Your task to perform on an android device: turn on the 24-hour format for clock Image 0: 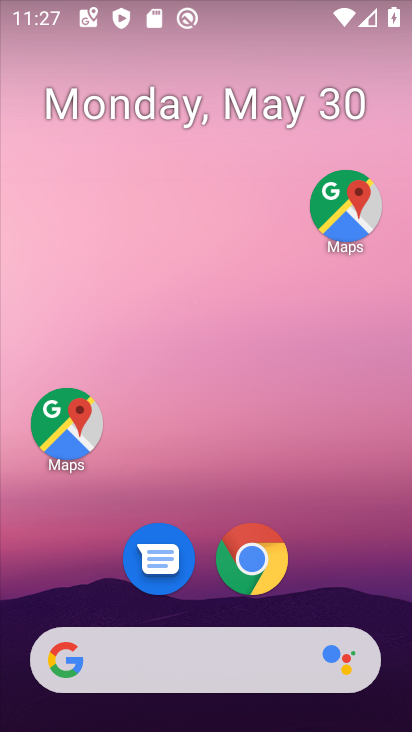
Step 0: drag from (319, 522) to (183, 18)
Your task to perform on an android device: turn on the 24-hour format for clock Image 1: 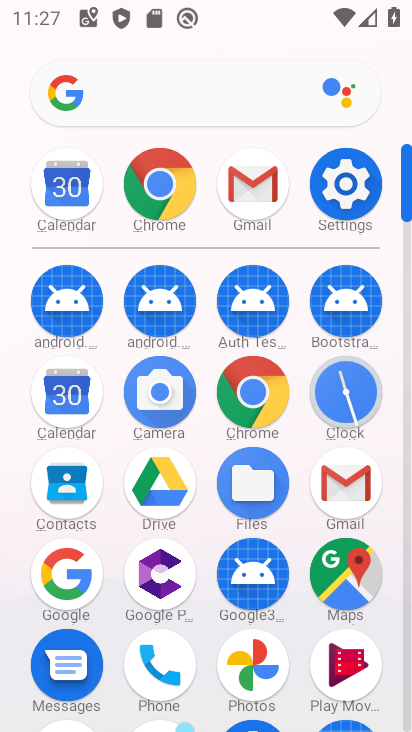
Step 1: click (337, 390)
Your task to perform on an android device: turn on the 24-hour format for clock Image 2: 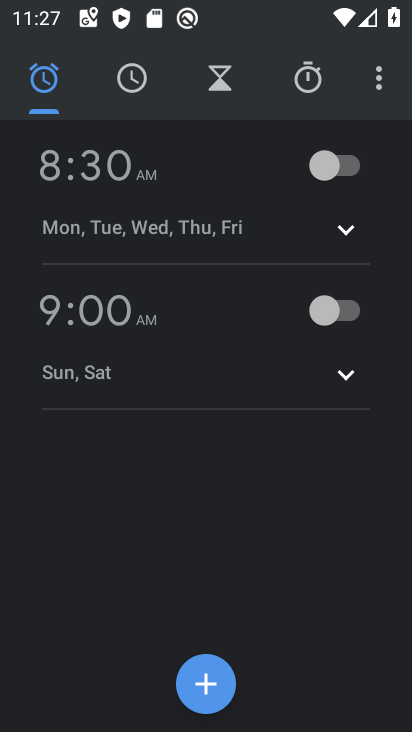
Step 2: drag from (375, 70) to (197, 160)
Your task to perform on an android device: turn on the 24-hour format for clock Image 3: 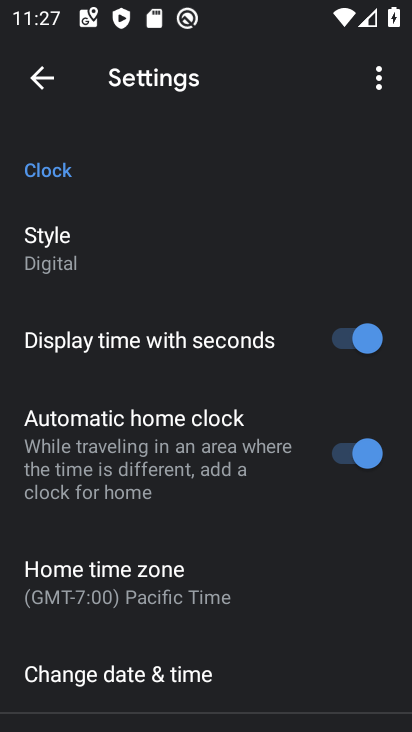
Step 3: click (173, 677)
Your task to perform on an android device: turn on the 24-hour format for clock Image 4: 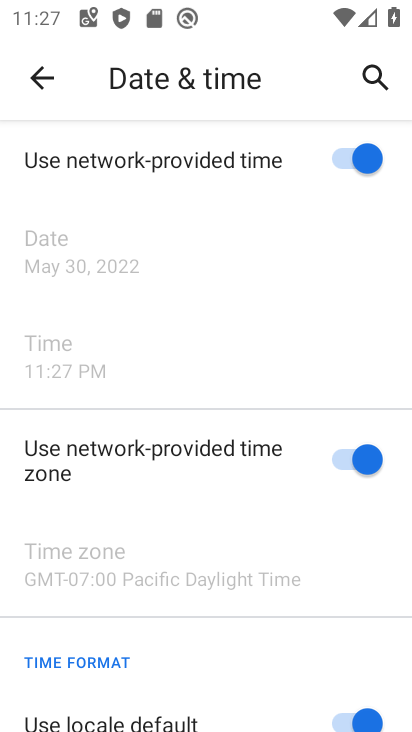
Step 4: drag from (228, 651) to (196, 216)
Your task to perform on an android device: turn on the 24-hour format for clock Image 5: 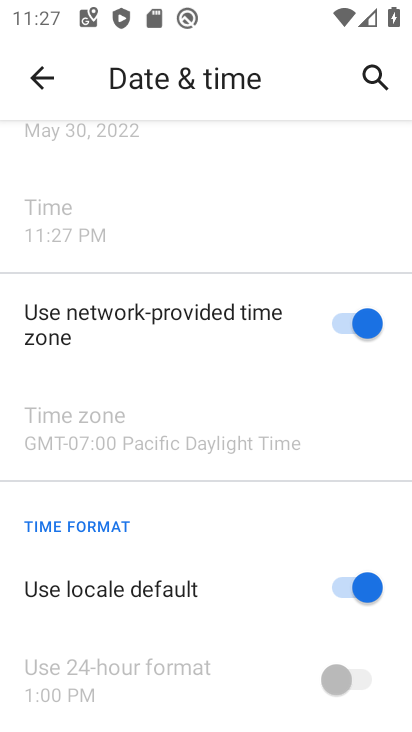
Step 5: click (350, 576)
Your task to perform on an android device: turn on the 24-hour format for clock Image 6: 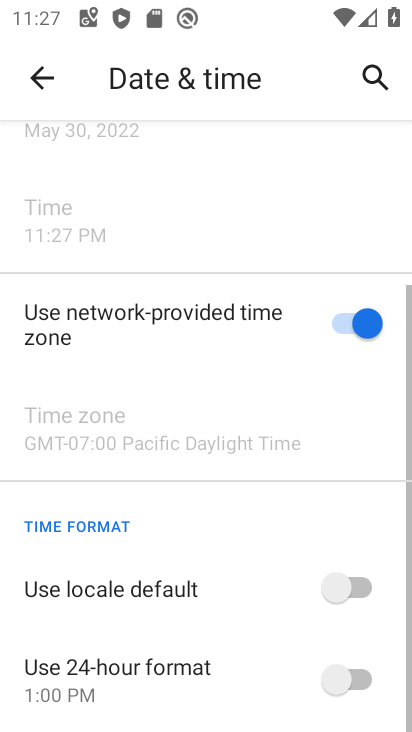
Step 6: click (327, 705)
Your task to perform on an android device: turn on the 24-hour format for clock Image 7: 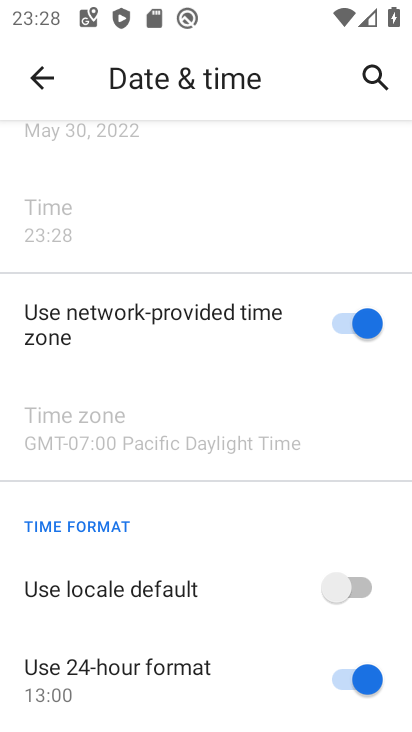
Step 7: task complete